Your task to perform on an android device: Open calendar and show me the fourth week of next month Image 0: 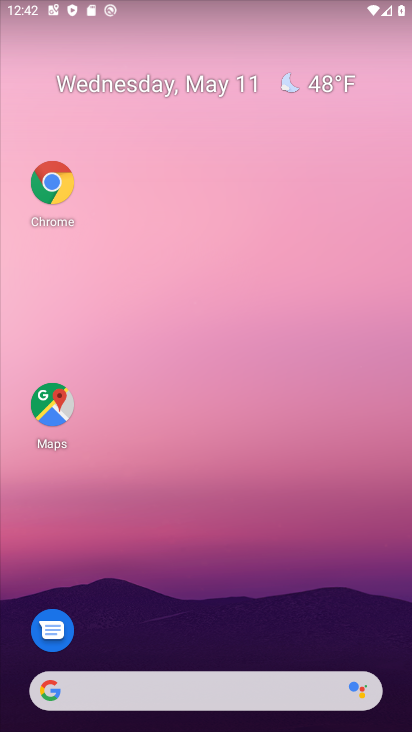
Step 0: drag from (208, 657) to (108, 4)
Your task to perform on an android device: Open calendar and show me the fourth week of next month Image 1: 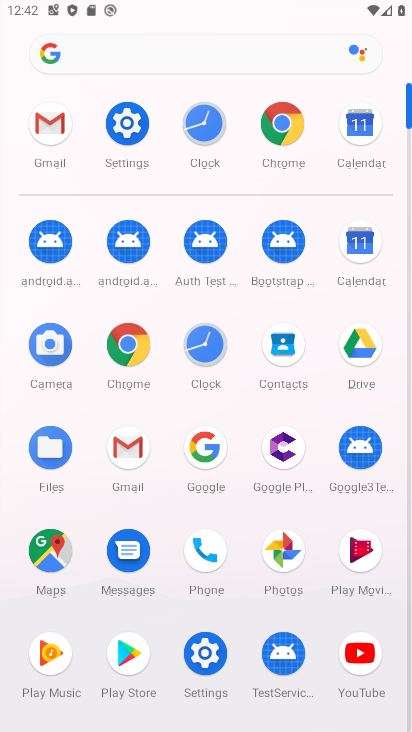
Step 1: click (354, 241)
Your task to perform on an android device: Open calendar and show me the fourth week of next month Image 2: 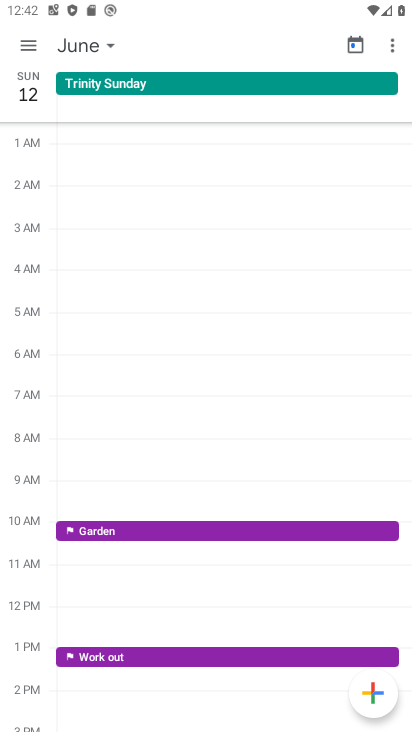
Step 2: click (23, 44)
Your task to perform on an android device: Open calendar and show me the fourth week of next month Image 3: 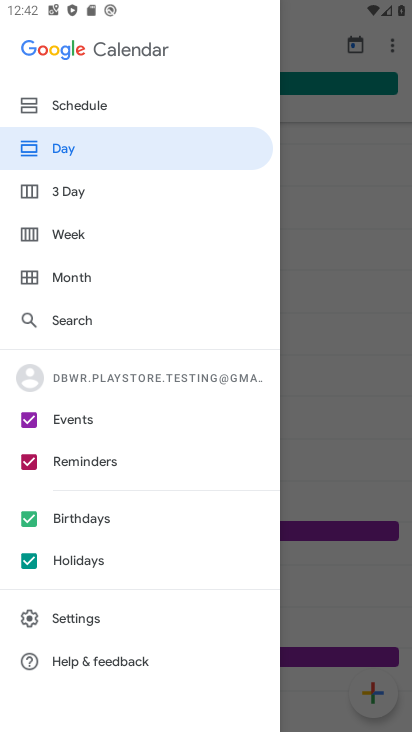
Step 3: click (72, 231)
Your task to perform on an android device: Open calendar and show me the fourth week of next month Image 4: 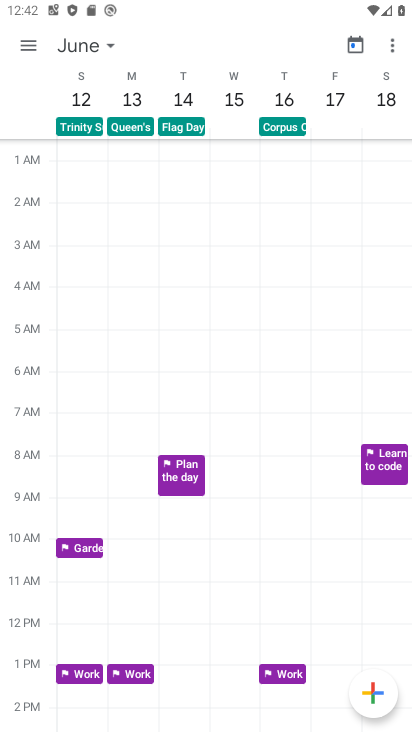
Step 4: task complete